Your task to perform on an android device: turn off data saver in the chrome app Image 0: 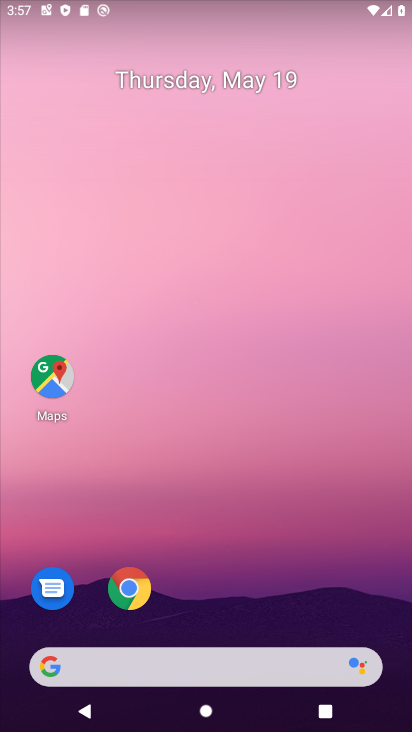
Step 0: click (129, 587)
Your task to perform on an android device: turn off data saver in the chrome app Image 1: 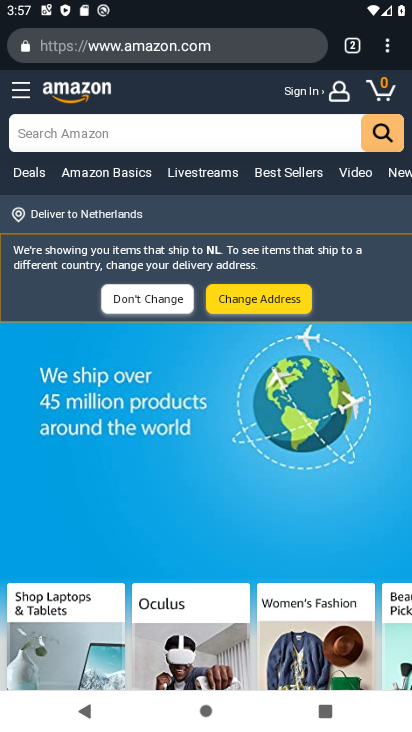
Step 1: click (379, 41)
Your task to perform on an android device: turn off data saver in the chrome app Image 2: 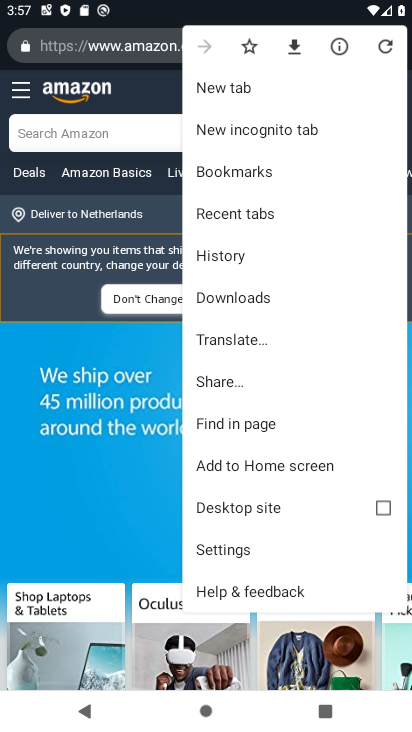
Step 2: click (240, 552)
Your task to perform on an android device: turn off data saver in the chrome app Image 3: 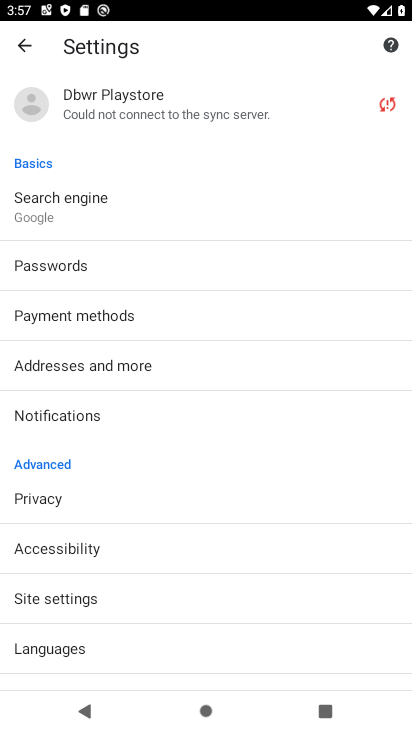
Step 3: drag from (94, 630) to (198, 22)
Your task to perform on an android device: turn off data saver in the chrome app Image 4: 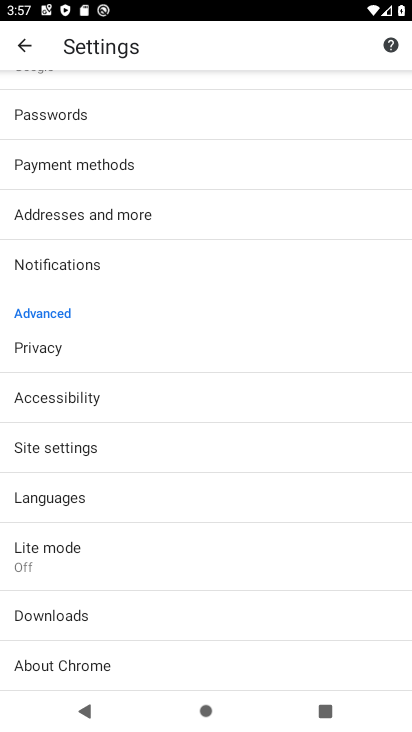
Step 4: click (83, 573)
Your task to perform on an android device: turn off data saver in the chrome app Image 5: 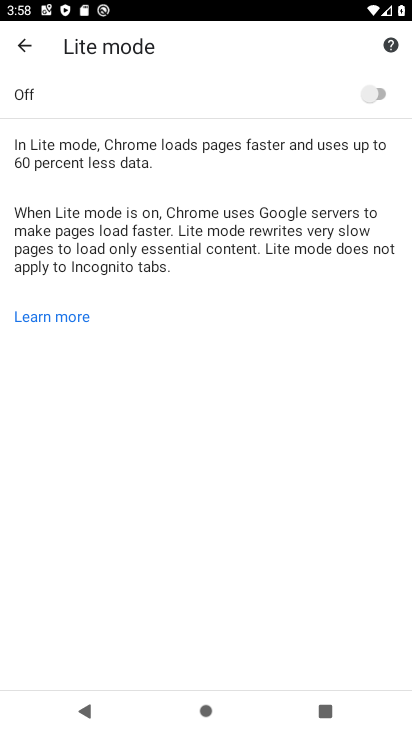
Step 5: task complete